Your task to perform on an android device: change notifications settings Image 0: 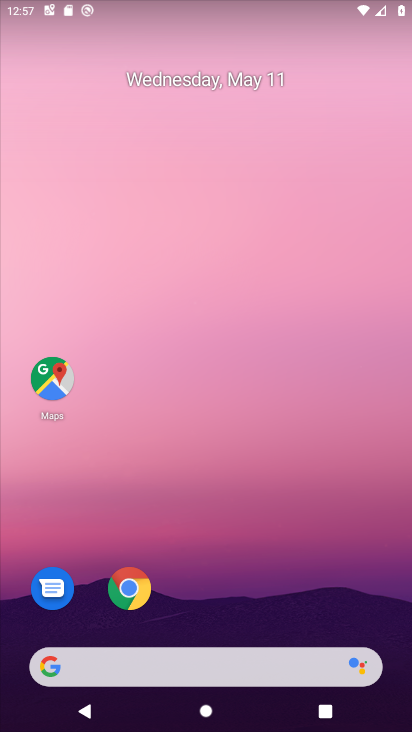
Step 0: drag from (190, 650) to (226, 316)
Your task to perform on an android device: change notifications settings Image 1: 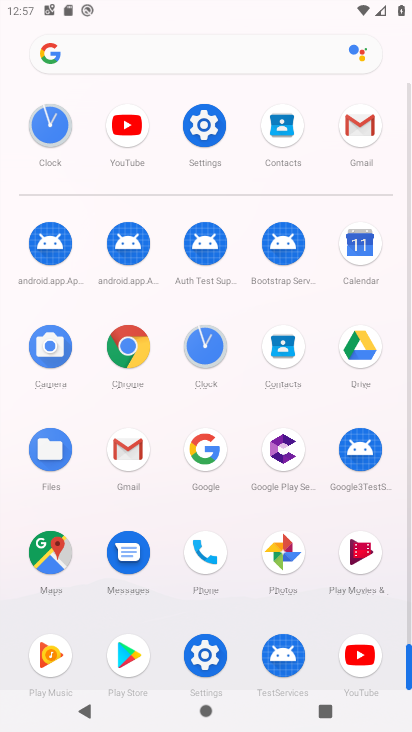
Step 1: click (195, 651)
Your task to perform on an android device: change notifications settings Image 2: 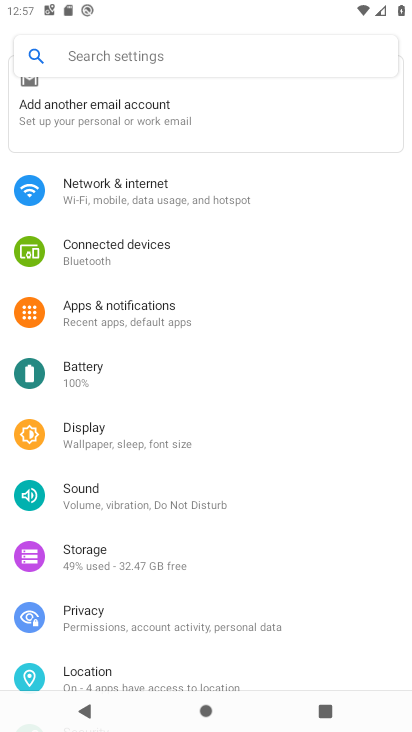
Step 2: click (139, 315)
Your task to perform on an android device: change notifications settings Image 3: 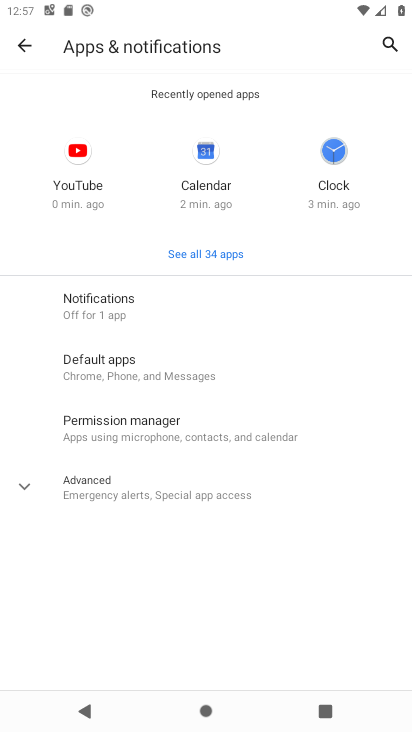
Step 3: click (91, 489)
Your task to perform on an android device: change notifications settings Image 4: 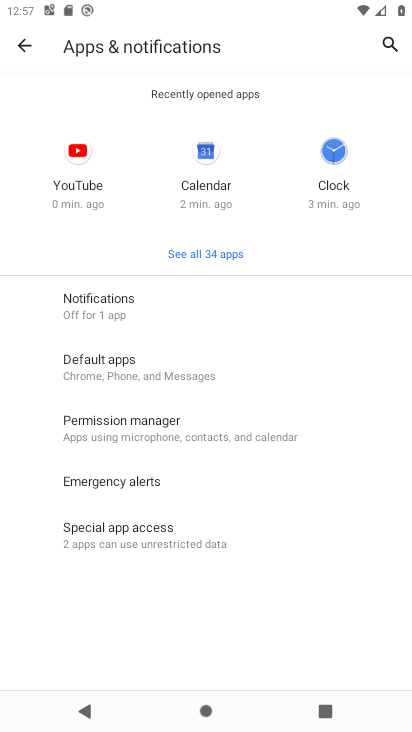
Step 4: task complete